Your task to perform on an android device: Go to battery settings Image 0: 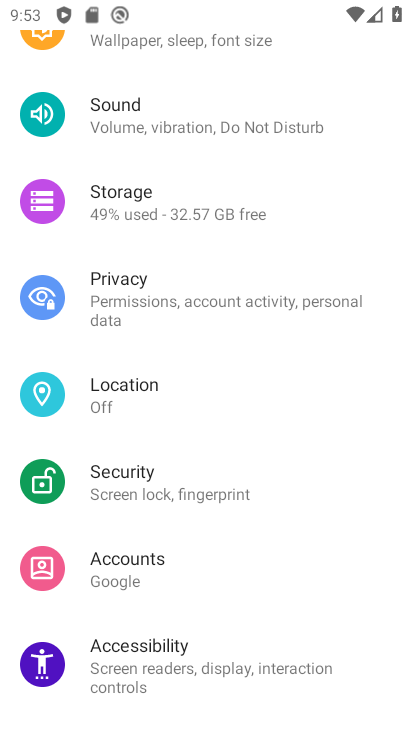
Step 0: drag from (196, 234) to (173, 636)
Your task to perform on an android device: Go to battery settings Image 1: 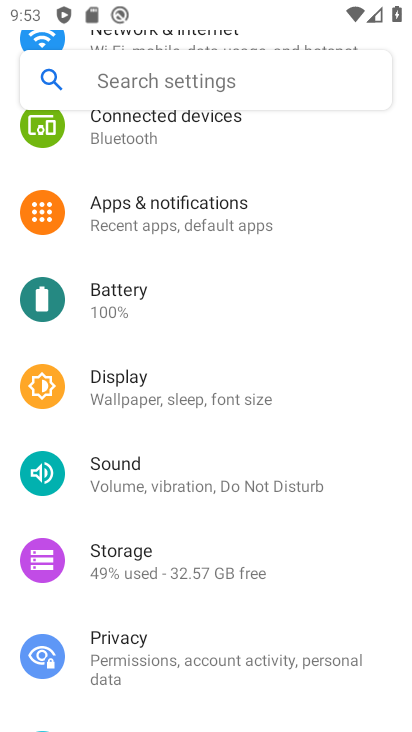
Step 1: click (141, 307)
Your task to perform on an android device: Go to battery settings Image 2: 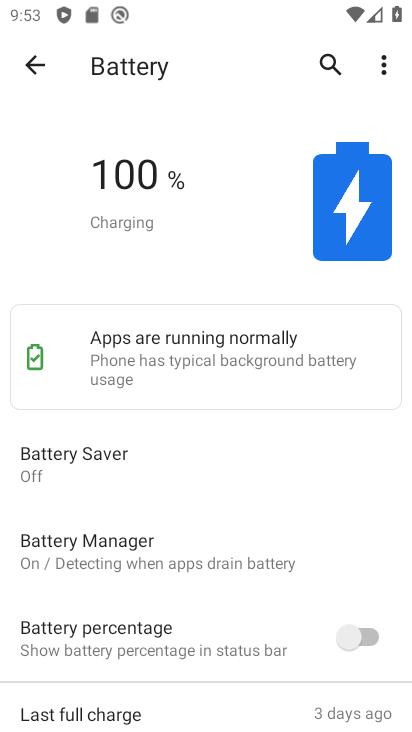
Step 2: task complete